Your task to perform on an android device: open wifi settings Image 0: 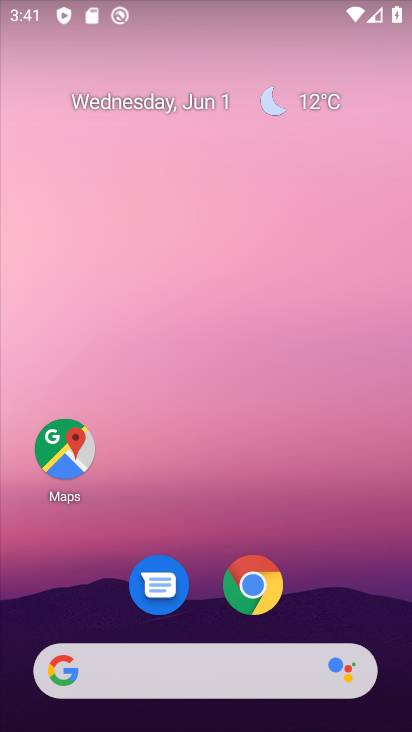
Step 0: drag from (311, 563) to (338, 37)
Your task to perform on an android device: open wifi settings Image 1: 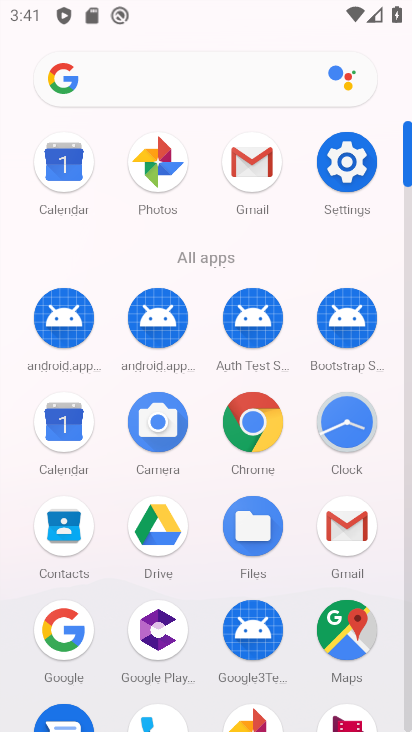
Step 1: click (345, 168)
Your task to perform on an android device: open wifi settings Image 2: 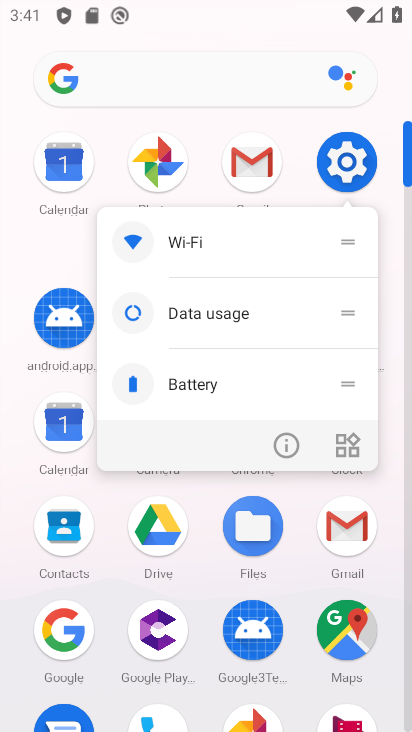
Step 2: click (347, 160)
Your task to perform on an android device: open wifi settings Image 3: 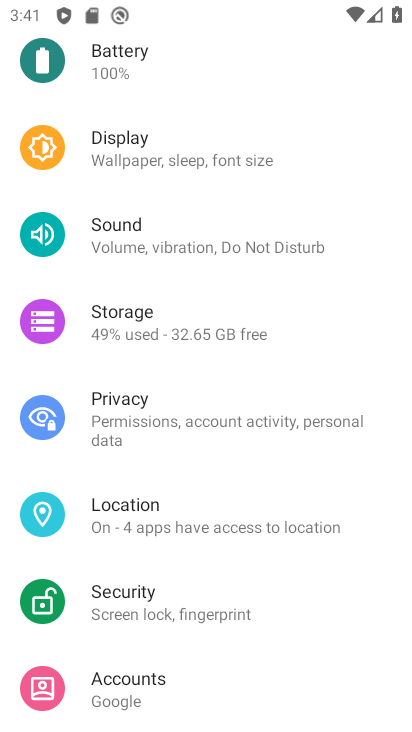
Step 3: drag from (185, 137) to (191, 603)
Your task to perform on an android device: open wifi settings Image 4: 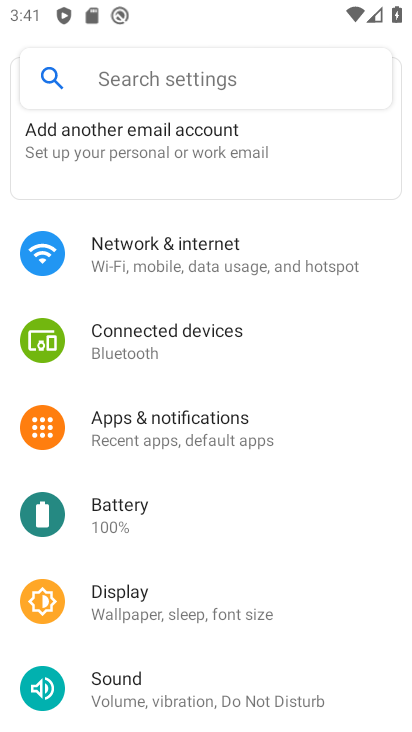
Step 4: click (171, 266)
Your task to perform on an android device: open wifi settings Image 5: 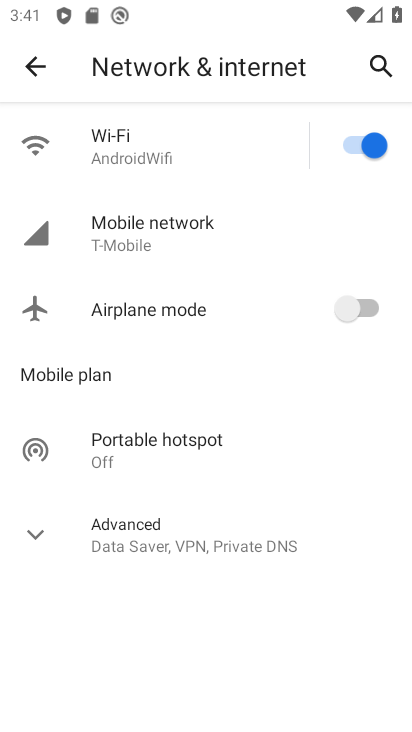
Step 5: click (186, 155)
Your task to perform on an android device: open wifi settings Image 6: 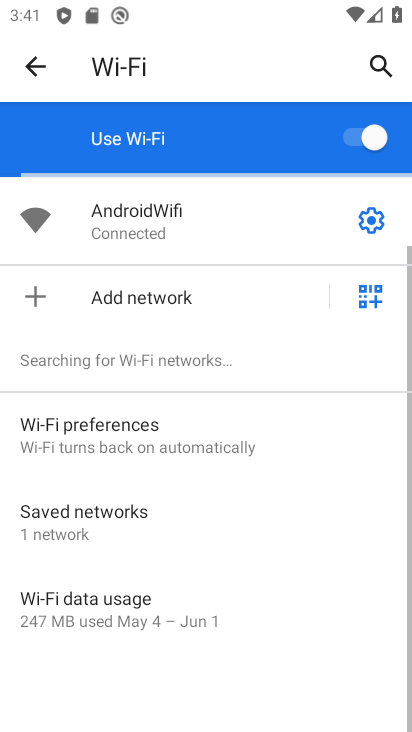
Step 6: task complete